Your task to perform on an android device: toggle show notifications on the lock screen Image 0: 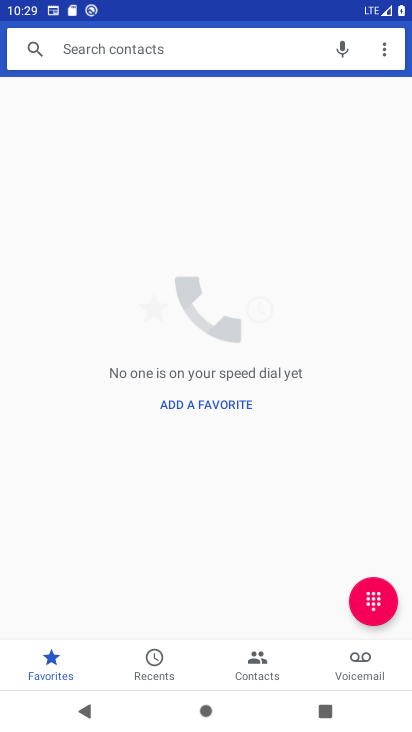
Step 0: press home button
Your task to perform on an android device: toggle show notifications on the lock screen Image 1: 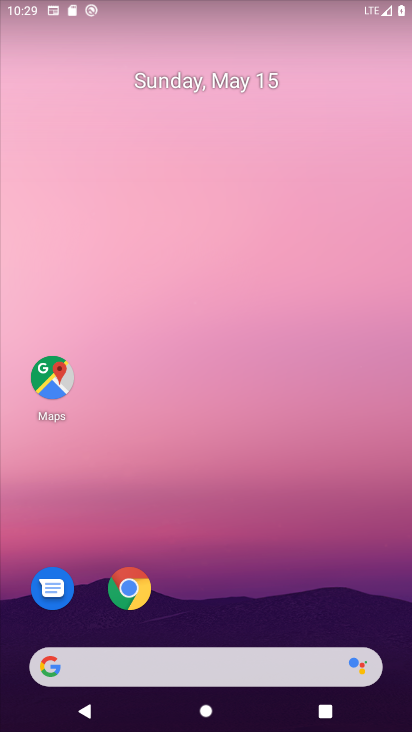
Step 1: drag from (266, 527) to (178, 128)
Your task to perform on an android device: toggle show notifications on the lock screen Image 2: 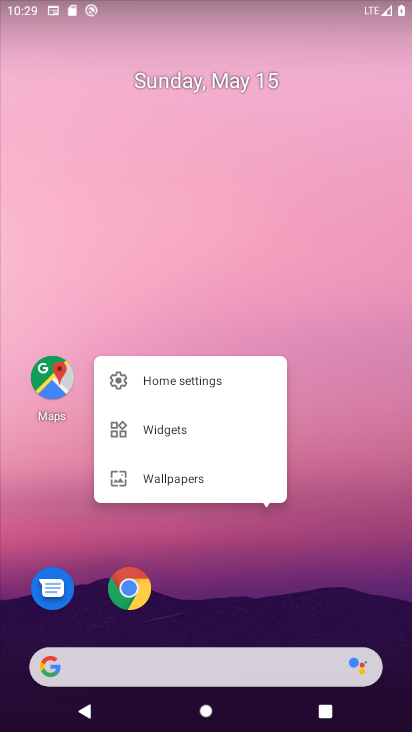
Step 2: click (271, 260)
Your task to perform on an android device: toggle show notifications on the lock screen Image 3: 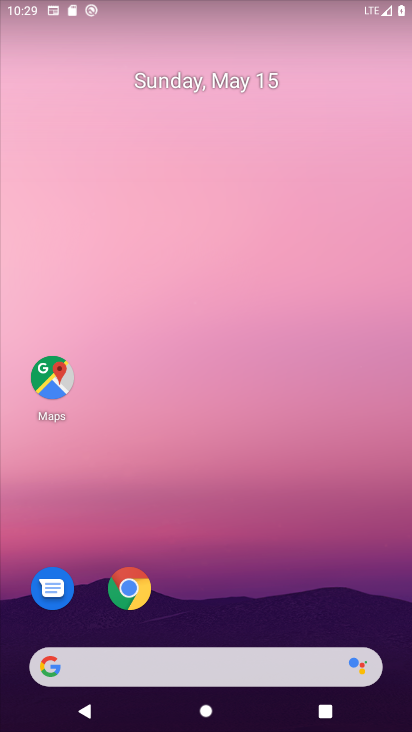
Step 3: drag from (242, 447) to (132, 39)
Your task to perform on an android device: toggle show notifications on the lock screen Image 4: 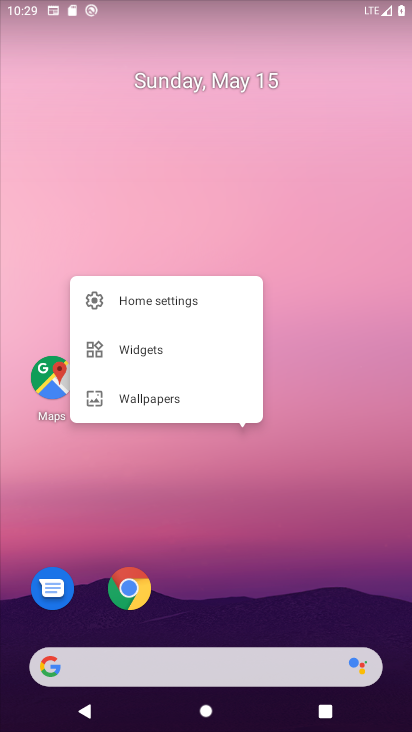
Step 4: click (269, 282)
Your task to perform on an android device: toggle show notifications on the lock screen Image 5: 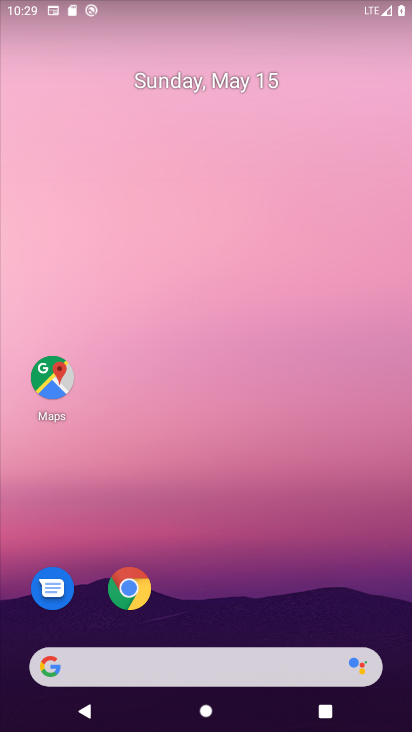
Step 5: click (269, 282)
Your task to perform on an android device: toggle show notifications on the lock screen Image 6: 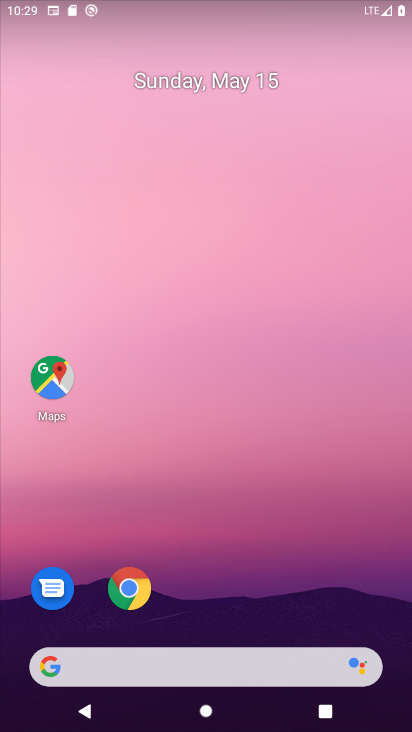
Step 6: drag from (269, 282) to (185, 81)
Your task to perform on an android device: toggle show notifications on the lock screen Image 7: 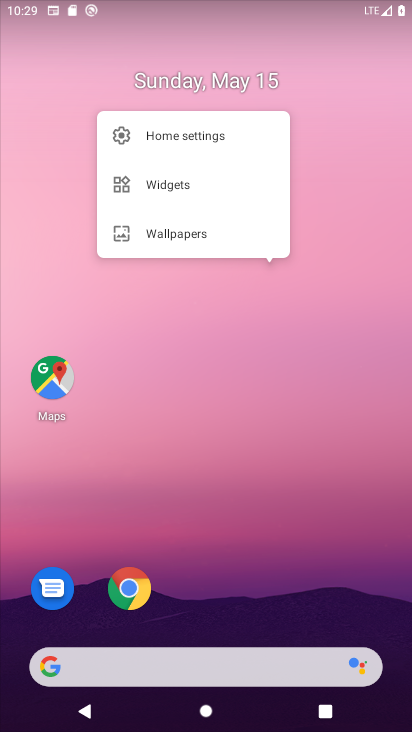
Step 7: click (215, 370)
Your task to perform on an android device: toggle show notifications on the lock screen Image 8: 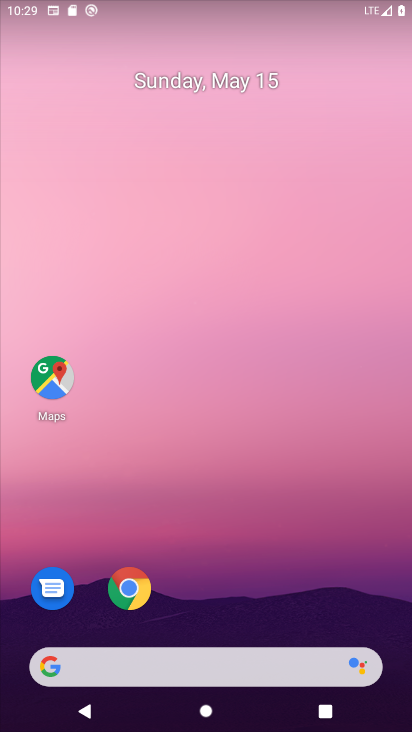
Step 8: drag from (201, 569) to (219, 300)
Your task to perform on an android device: toggle show notifications on the lock screen Image 9: 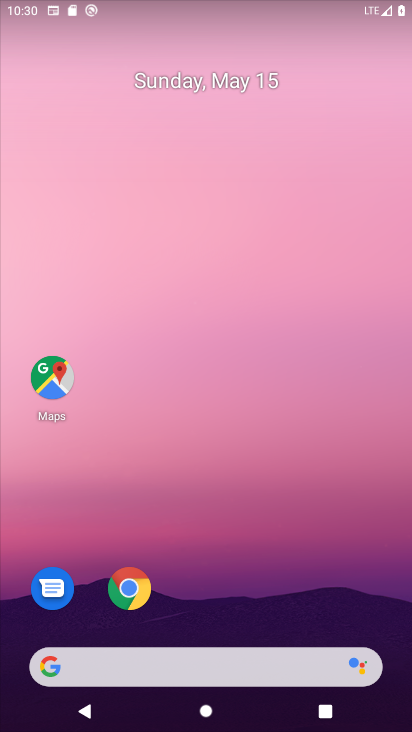
Step 9: drag from (244, 511) to (256, 180)
Your task to perform on an android device: toggle show notifications on the lock screen Image 10: 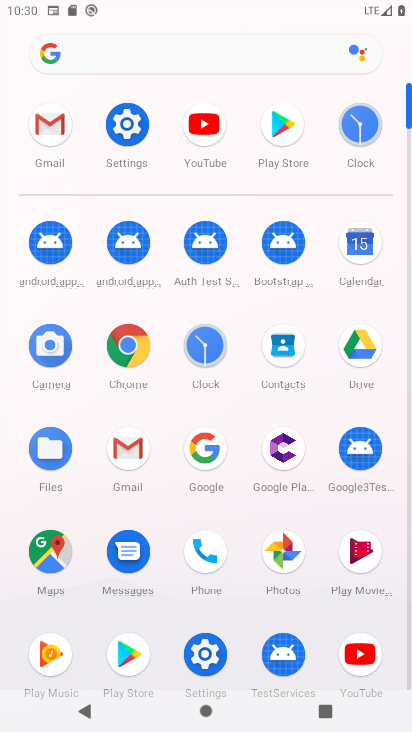
Step 10: click (133, 125)
Your task to perform on an android device: toggle show notifications on the lock screen Image 11: 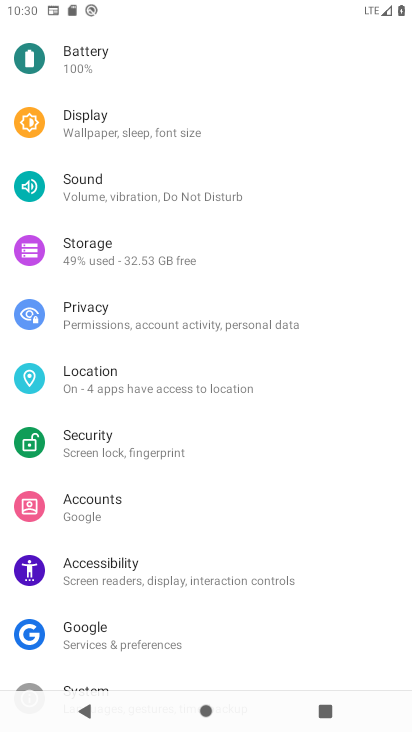
Step 11: drag from (205, 97) to (247, 319)
Your task to perform on an android device: toggle show notifications on the lock screen Image 12: 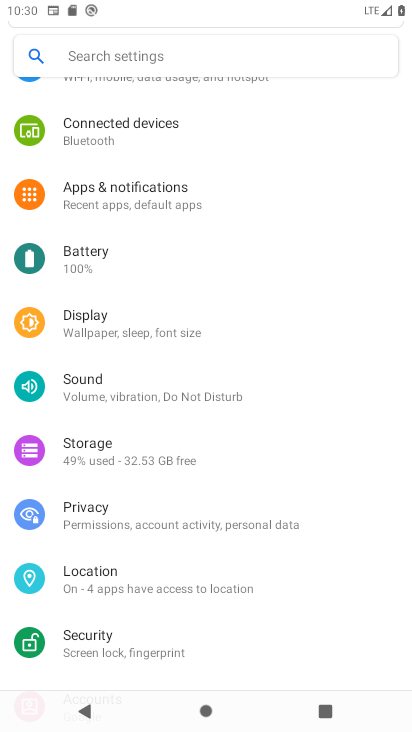
Step 12: click (195, 207)
Your task to perform on an android device: toggle show notifications on the lock screen Image 13: 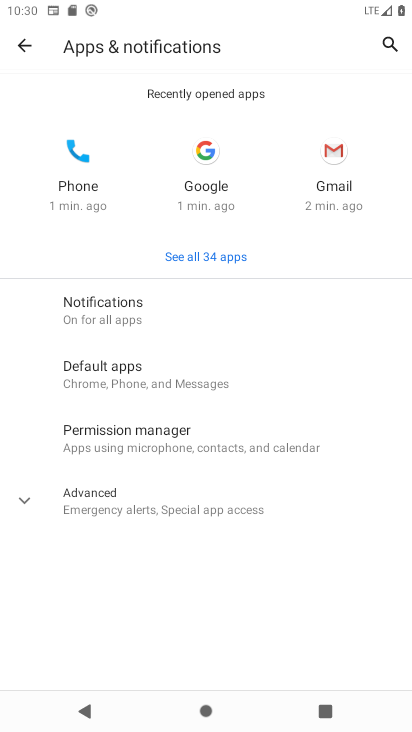
Step 13: click (139, 506)
Your task to perform on an android device: toggle show notifications on the lock screen Image 14: 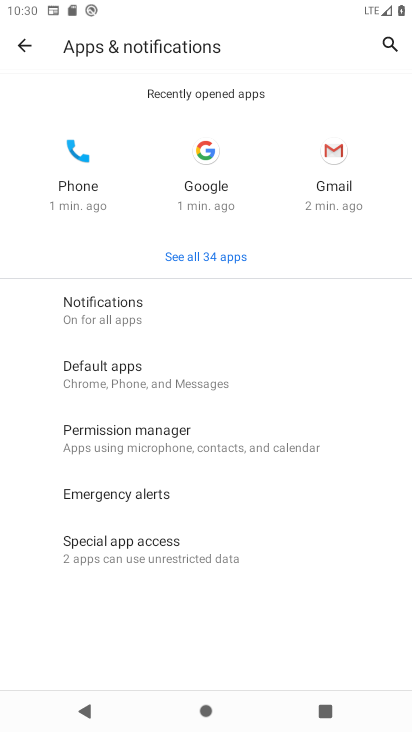
Step 14: click (135, 315)
Your task to perform on an android device: toggle show notifications on the lock screen Image 15: 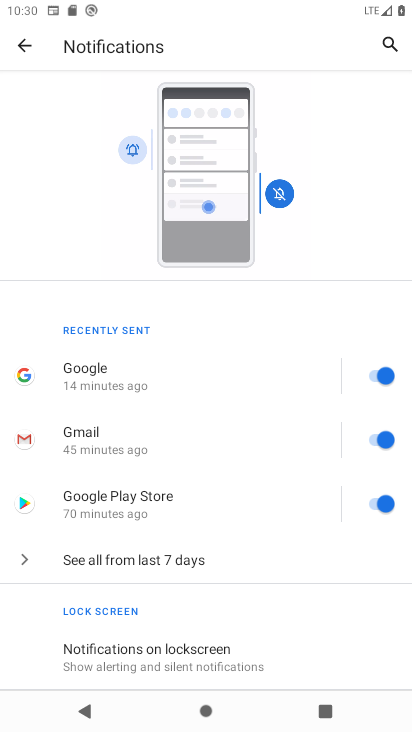
Step 15: click (187, 656)
Your task to perform on an android device: toggle show notifications on the lock screen Image 16: 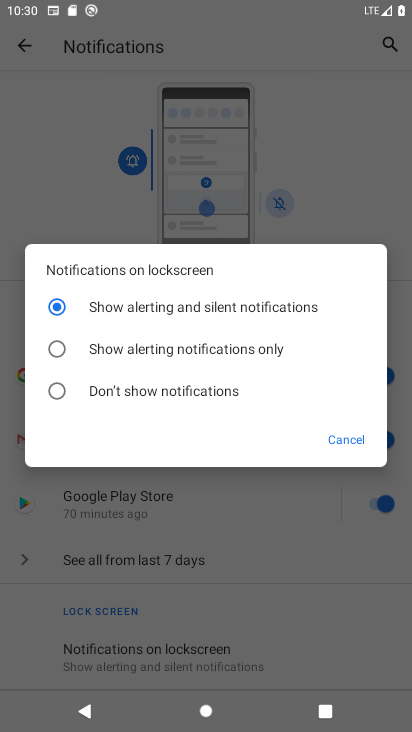
Step 16: click (56, 349)
Your task to perform on an android device: toggle show notifications on the lock screen Image 17: 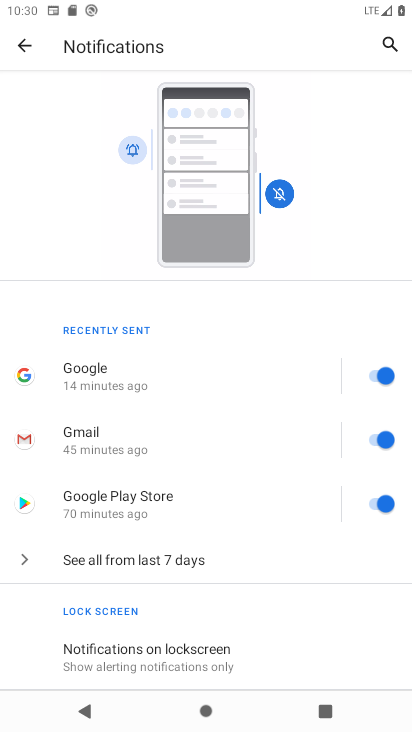
Step 17: task complete